Your task to perform on an android device: Go to Maps Image 0: 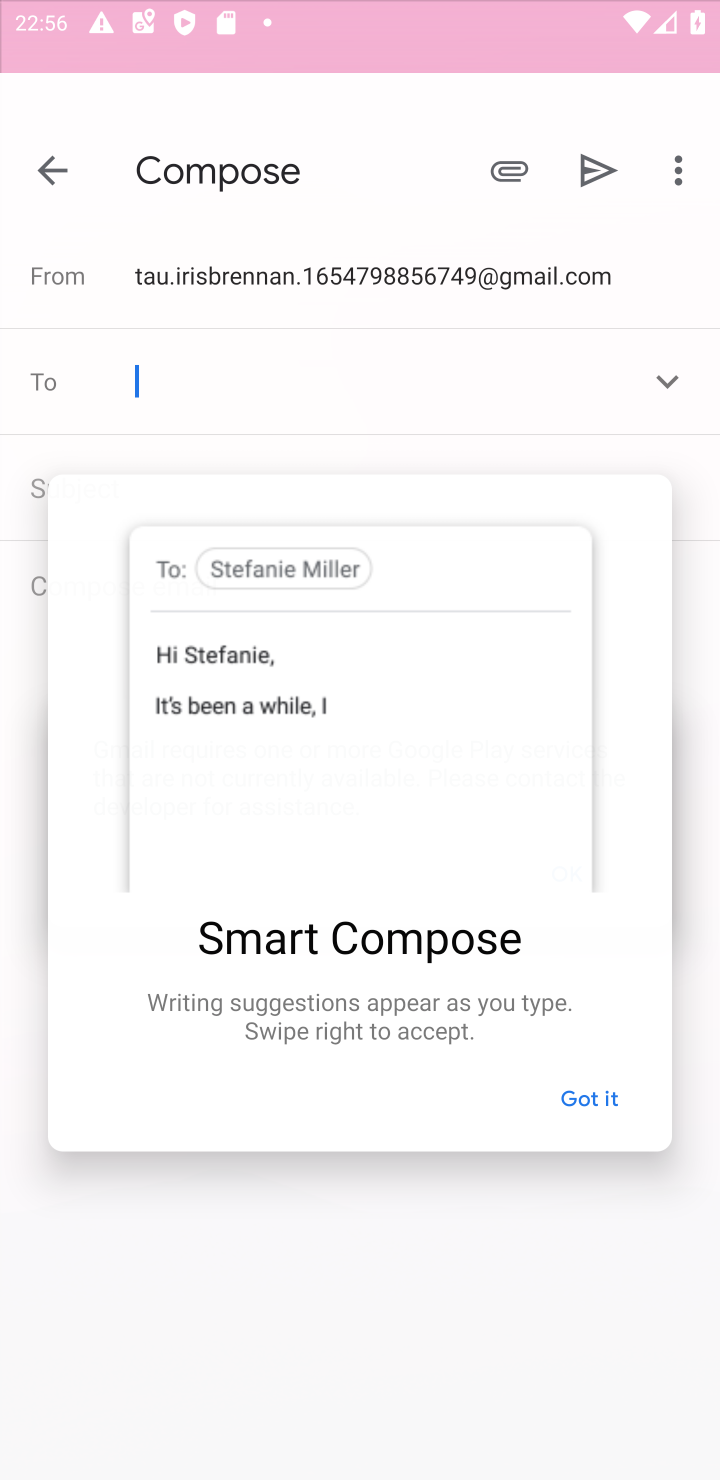
Step 0: press home button
Your task to perform on an android device: Go to Maps Image 1: 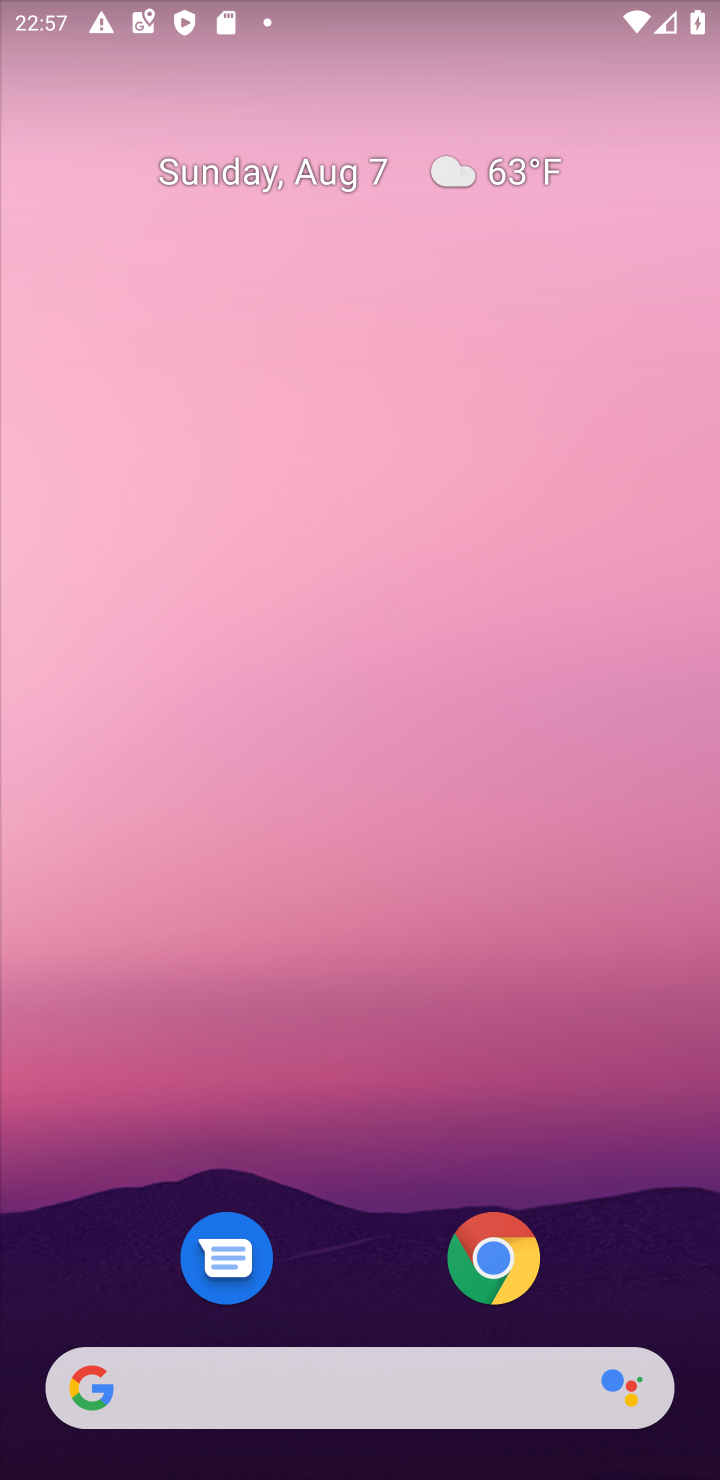
Step 1: drag from (368, 1304) to (421, 94)
Your task to perform on an android device: Go to Maps Image 2: 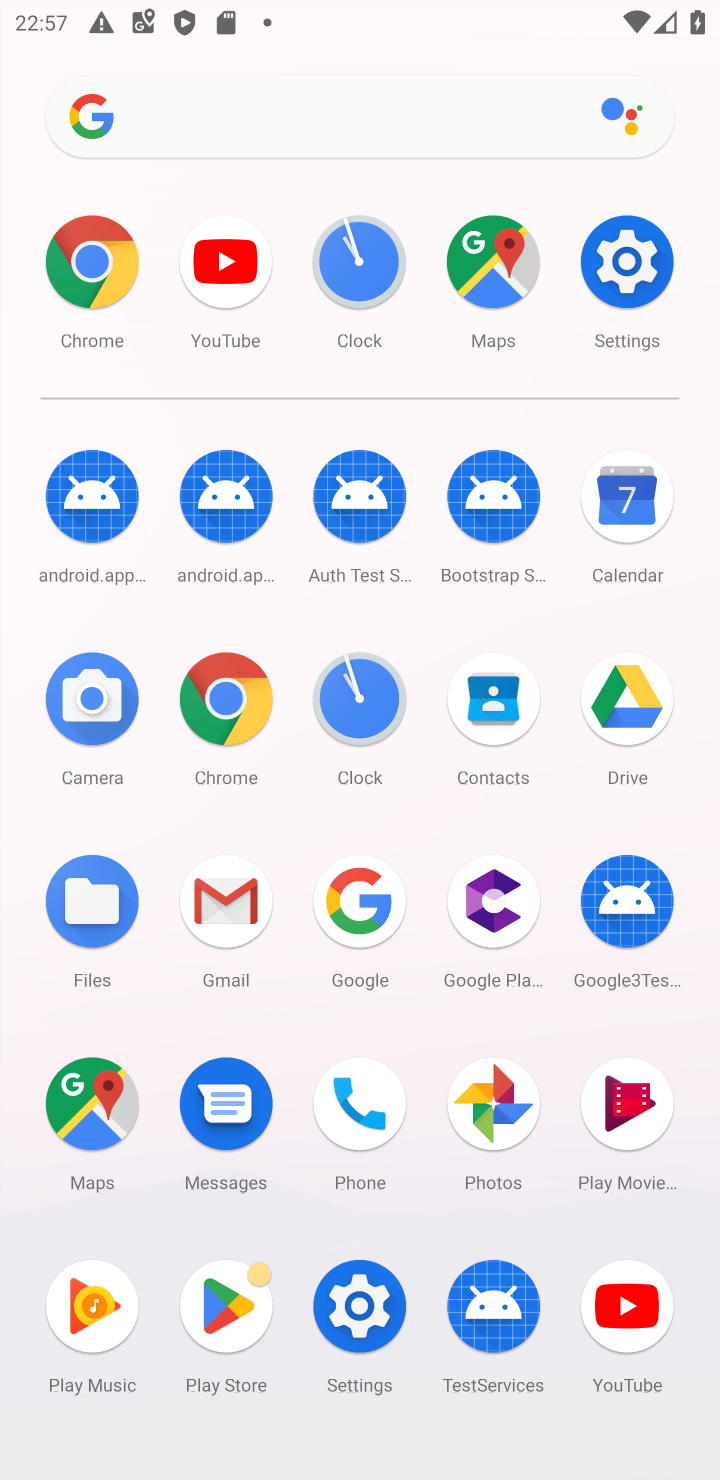
Step 2: click (69, 1083)
Your task to perform on an android device: Go to Maps Image 3: 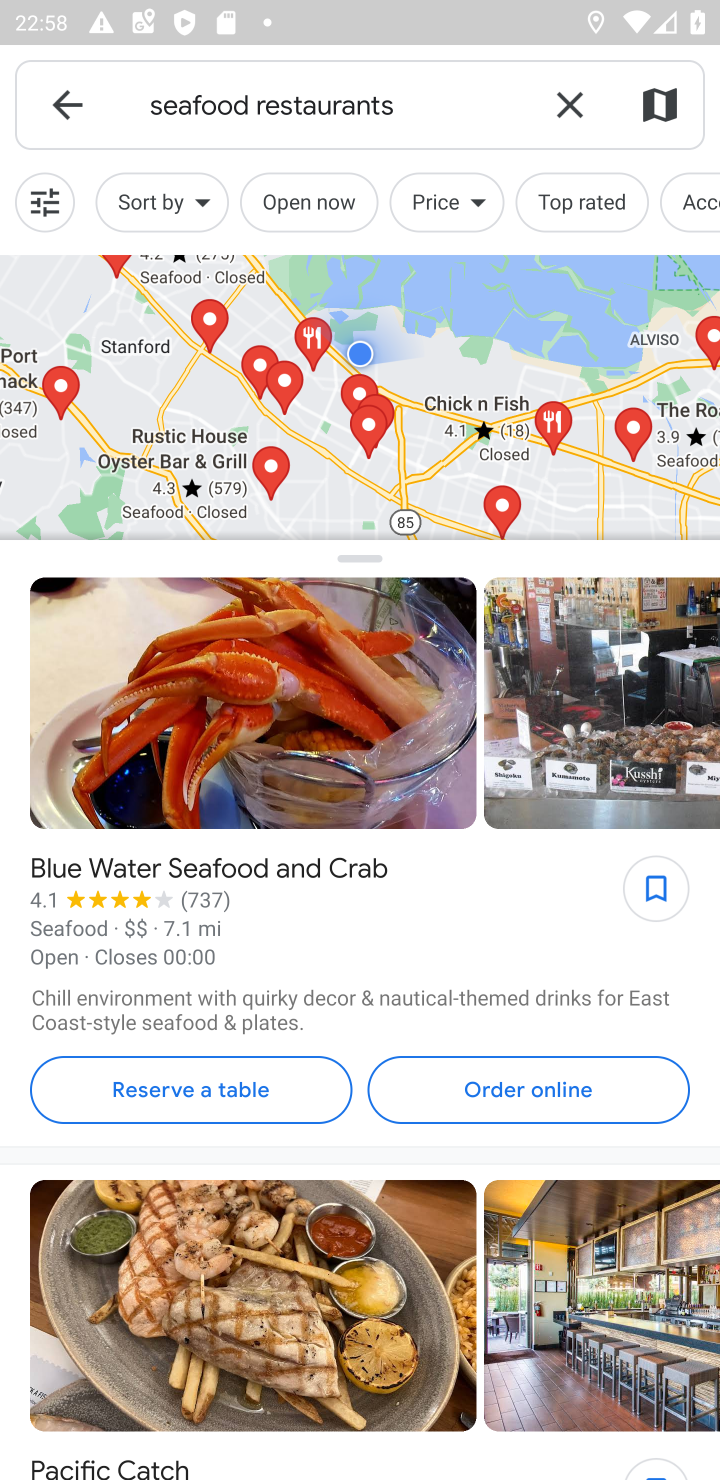
Step 3: click (60, 121)
Your task to perform on an android device: Go to Maps Image 4: 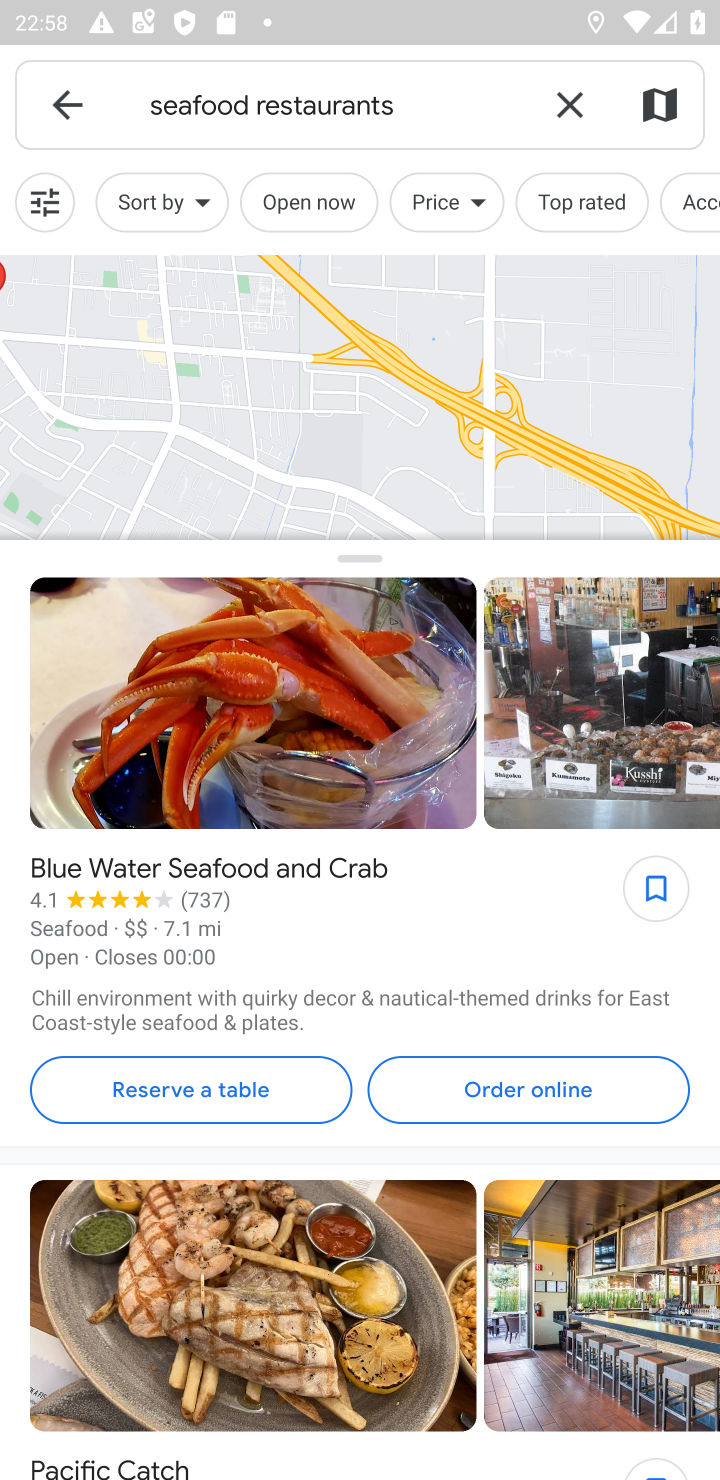
Step 4: task complete